Your task to perform on an android device: What's on the menu at Taco Bell? Image 0: 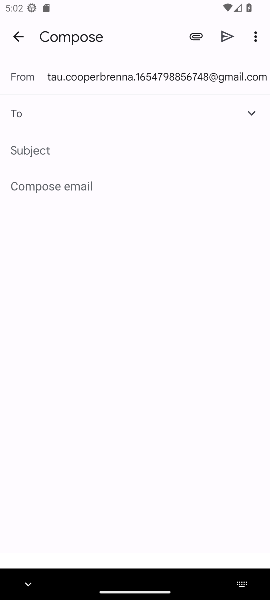
Step 0: press home button
Your task to perform on an android device: What's on the menu at Taco Bell? Image 1: 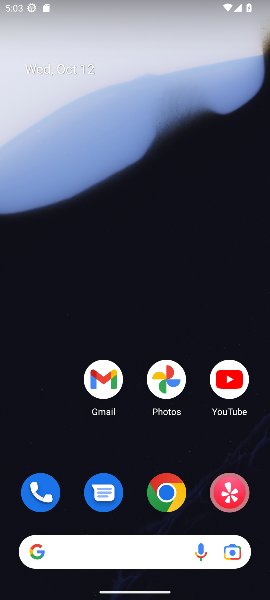
Step 1: click (176, 494)
Your task to perform on an android device: What's on the menu at Taco Bell? Image 2: 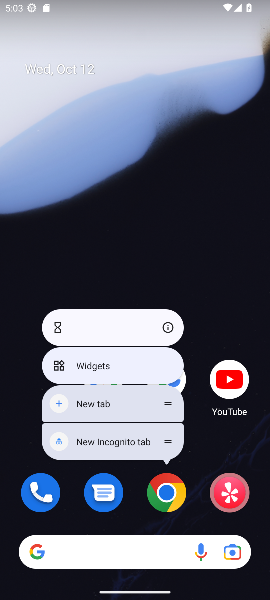
Step 2: click (155, 495)
Your task to perform on an android device: What's on the menu at Taco Bell? Image 3: 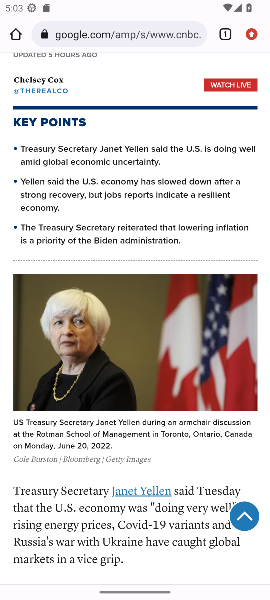
Step 3: click (97, 32)
Your task to perform on an android device: What's on the menu at Taco Bell? Image 4: 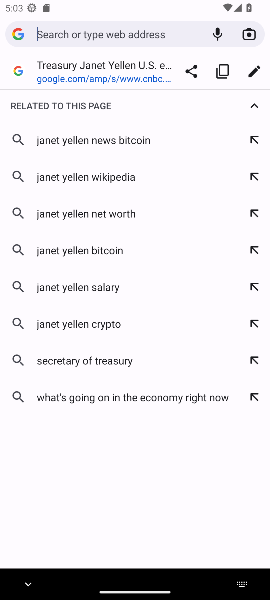
Step 4: type "Taco Bell menu"
Your task to perform on an android device: What's on the menu at Taco Bell? Image 5: 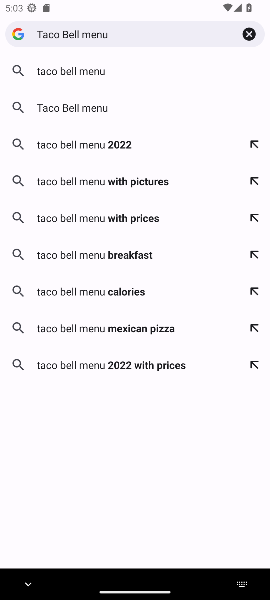
Step 5: click (77, 84)
Your task to perform on an android device: What's on the menu at Taco Bell? Image 6: 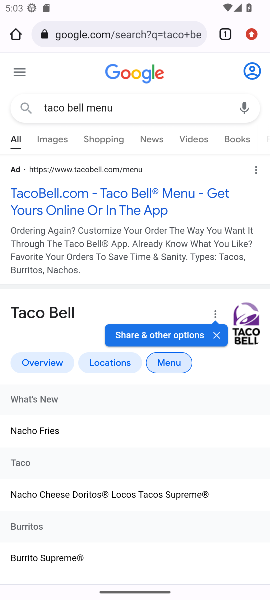
Step 6: task complete